Your task to perform on an android device: turn off location Image 0: 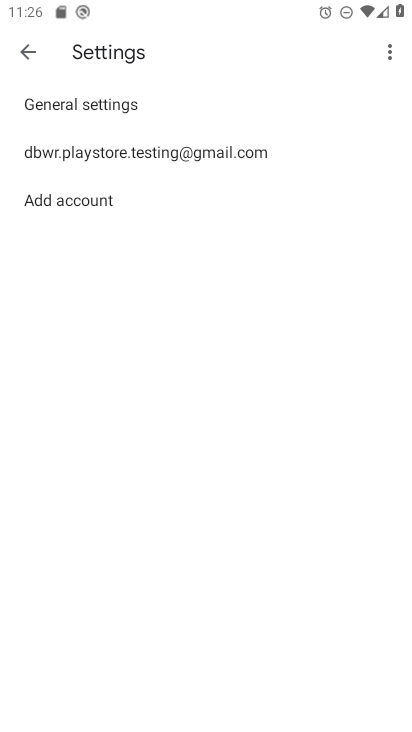
Step 0: press home button
Your task to perform on an android device: turn off location Image 1: 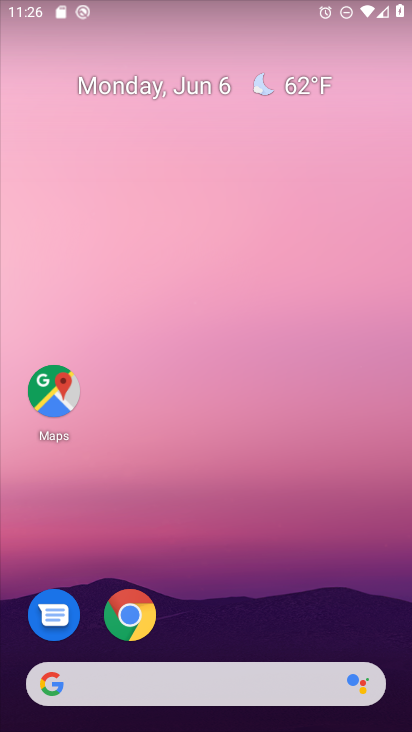
Step 1: drag from (223, 671) to (85, 0)
Your task to perform on an android device: turn off location Image 2: 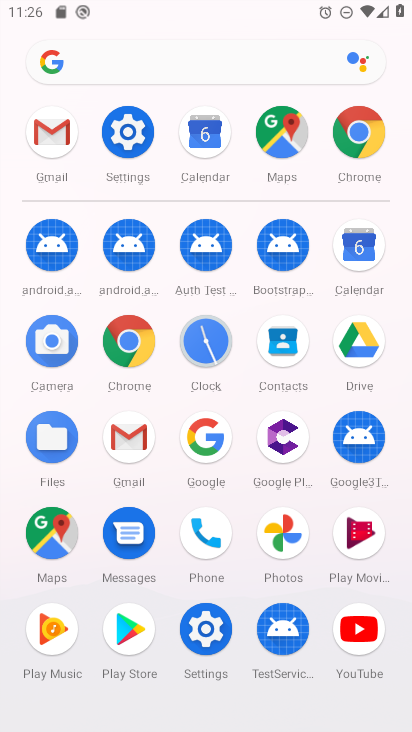
Step 2: click (147, 142)
Your task to perform on an android device: turn off location Image 3: 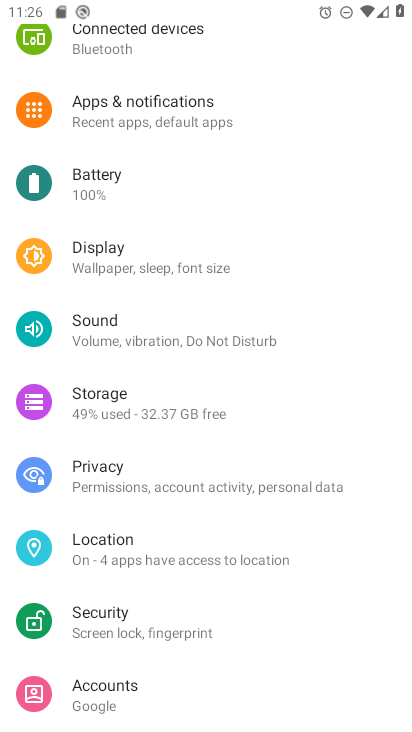
Step 3: click (199, 555)
Your task to perform on an android device: turn off location Image 4: 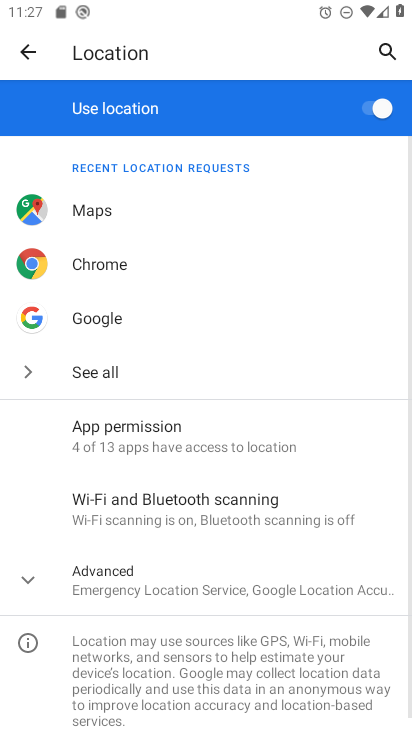
Step 4: click (122, 569)
Your task to perform on an android device: turn off location Image 5: 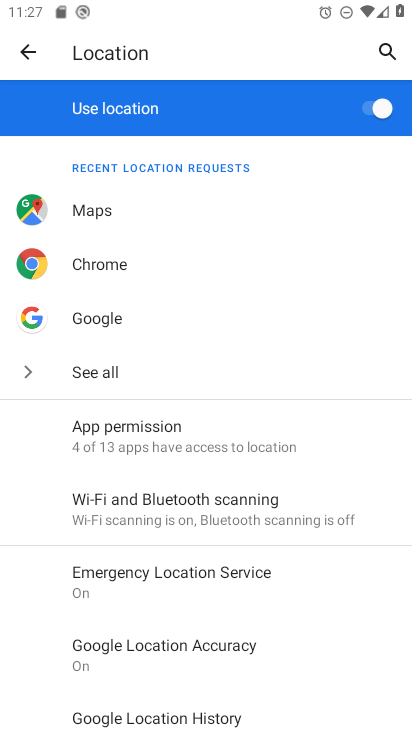
Step 5: click (380, 107)
Your task to perform on an android device: turn off location Image 6: 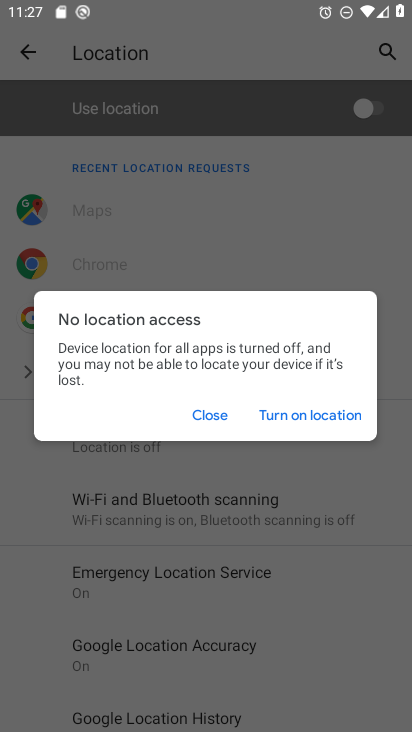
Step 6: click (212, 416)
Your task to perform on an android device: turn off location Image 7: 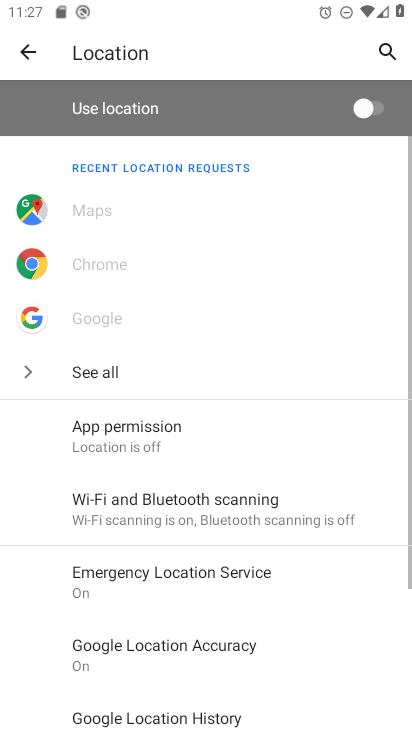
Step 7: task complete